Your task to perform on an android device: set the stopwatch Image 0: 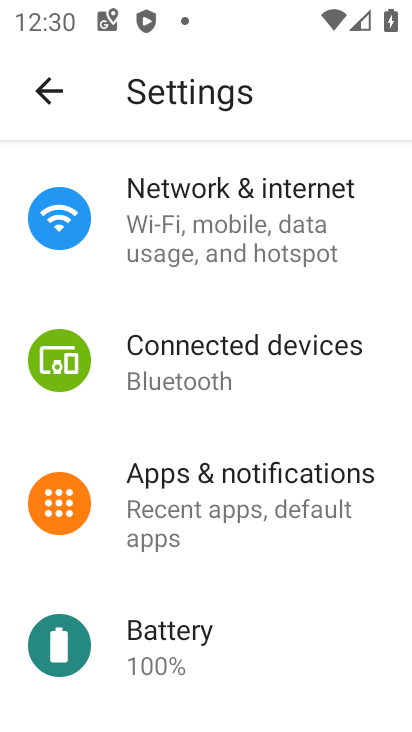
Step 0: press home button
Your task to perform on an android device: set the stopwatch Image 1: 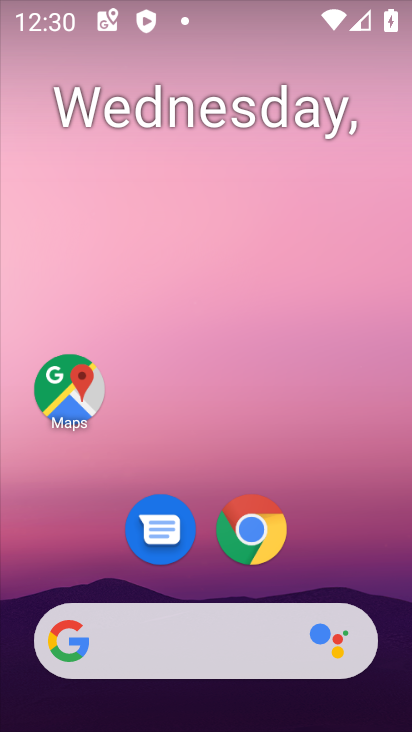
Step 1: drag from (398, 636) to (276, 105)
Your task to perform on an android device: set the stopwatch Image 2: 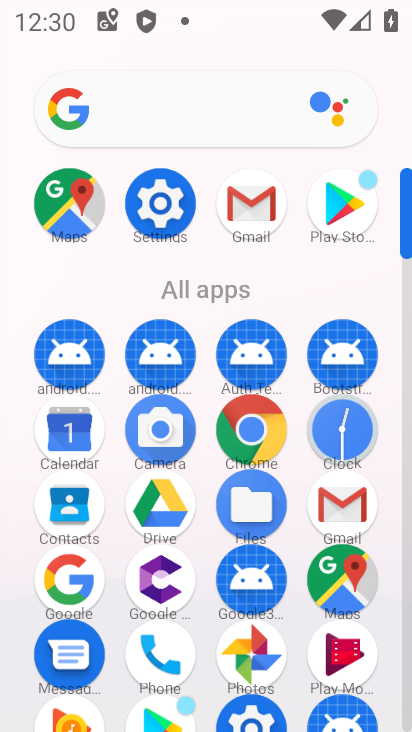
Step 2: click (344, 430)
Your task to perform on an android device: set the stopwatch Image 3: 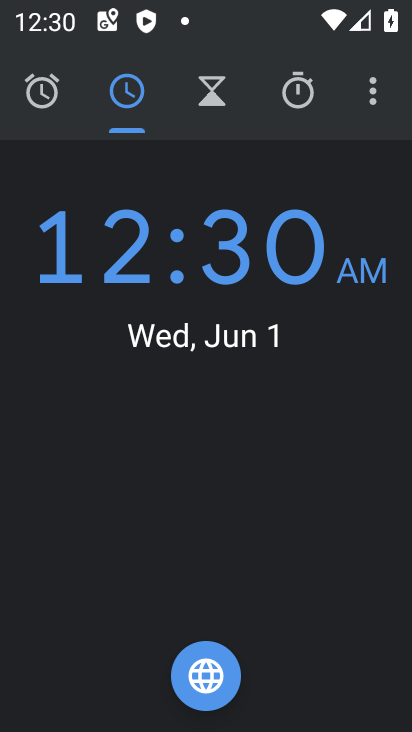
Step 3: click (298, 96)
Your task to perform on an android device: set the stopwatch Image 4: 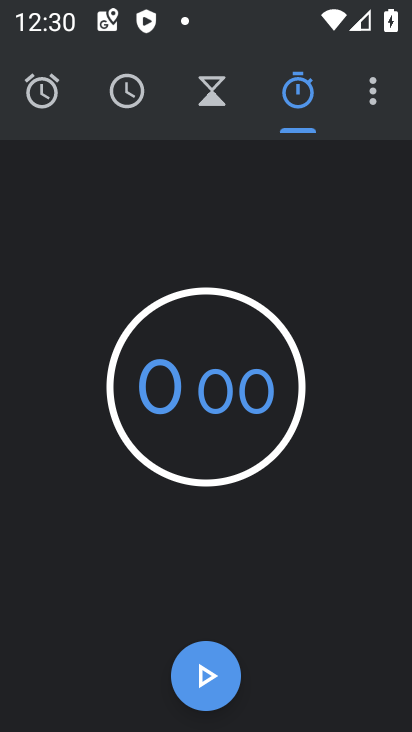
Step 4: task complete